Your task to perform on an android device: Go to Yahoo.com Image 0: 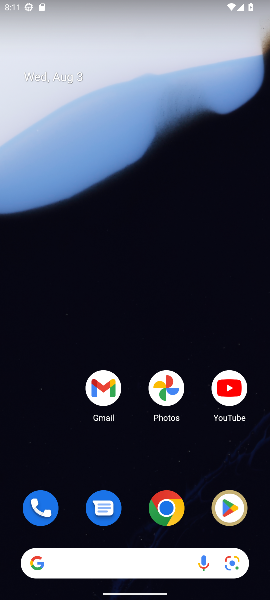
Step 0: click (169, 509)
Your task to perform on an android device: Go to Yahoo.com Image 1: 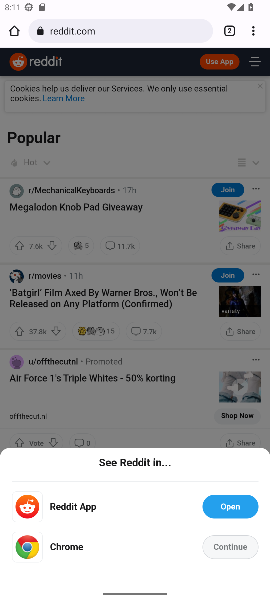
Step 1: click (235, 30)
Your task to perform on an android device: Go to Yahoo.com Image 2: 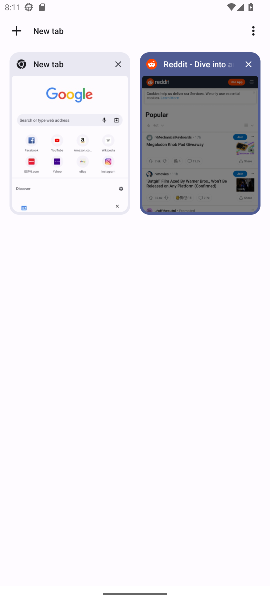
Step 2: click (14, 32)
Your task to perform on an android device: Go to Yahoo.com Image 3: 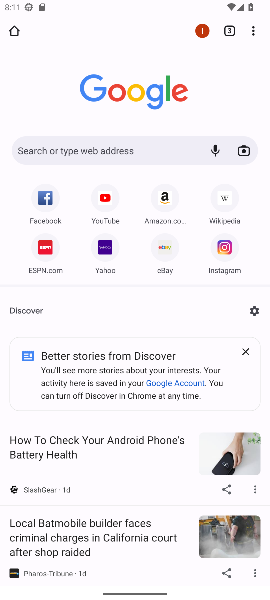
Step 3: click (109, 246)
Your task to perform on an android device: Go to Yahoo.com Image 4: 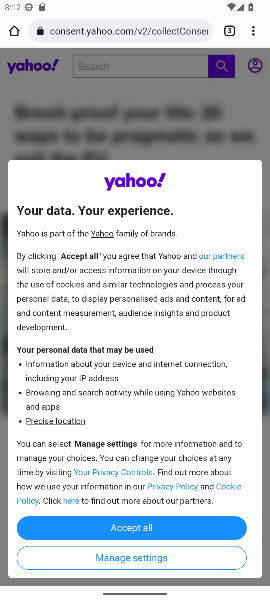
Step 4: task complete